Your task to perform on an android device: toggle show notifications on the lock screen Image 0: 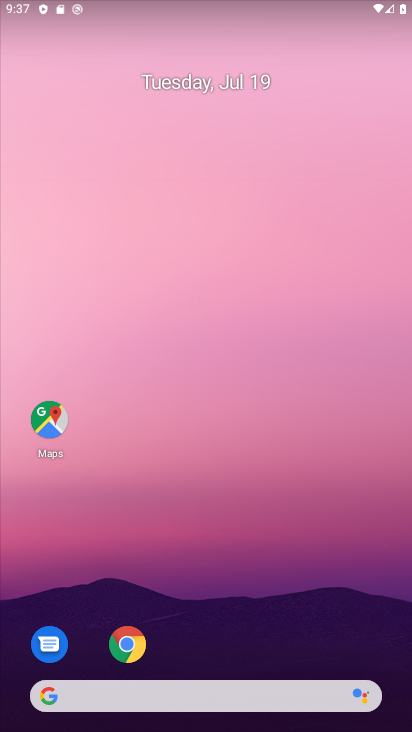
Step 0: drag from (231, 663) to (242, 225)
Your task to perform on an android device: toggle show notifications on the lock screen Image 1: 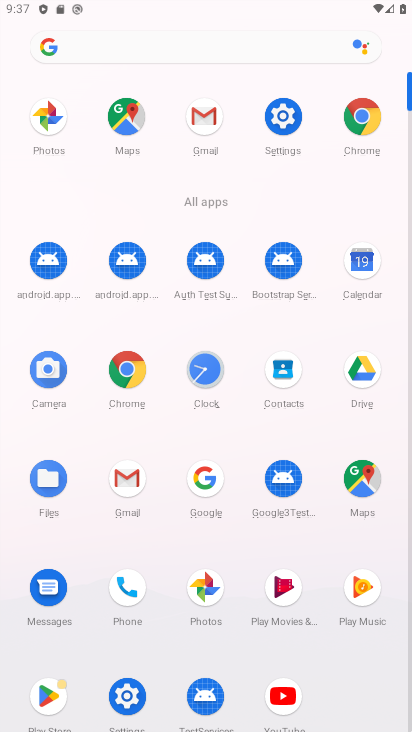
Step 1: click (124, 704)
Your task to perform on an android device: toggle show notifications on the lock screen Image 2: 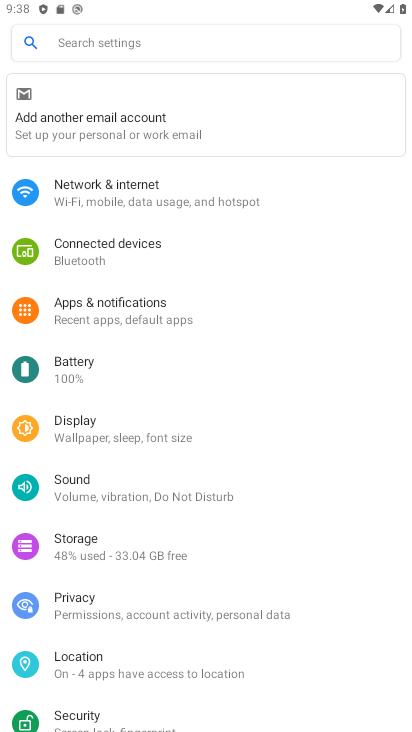
Step 2: click (152, 315)
Your task to perform on an android device: toggle show notifications on the lock screen Image 3: 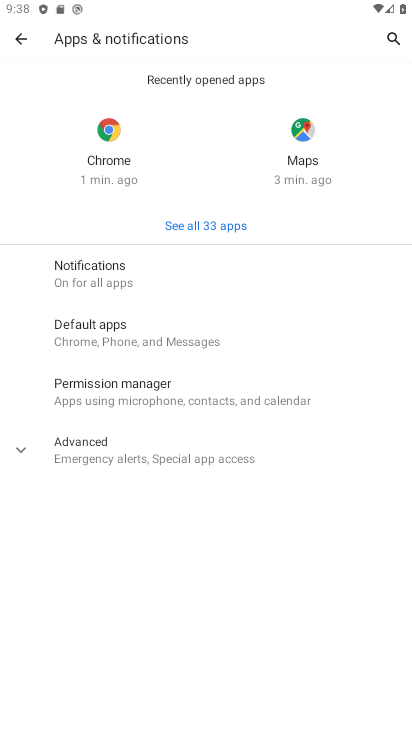
Step 3: click (159, 287)
Your task to perform on an android device: toggle show notifications on the lock screen Image 4: 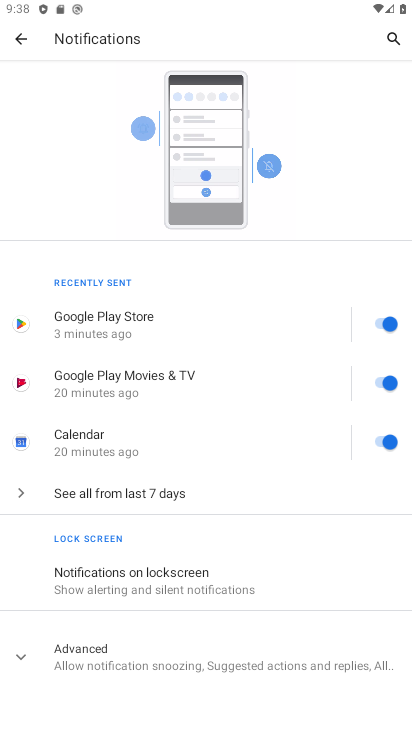
Step 4: click (233, 589)
Your task to perform on an android device: toggle show notifications on the lock screen Image 5: 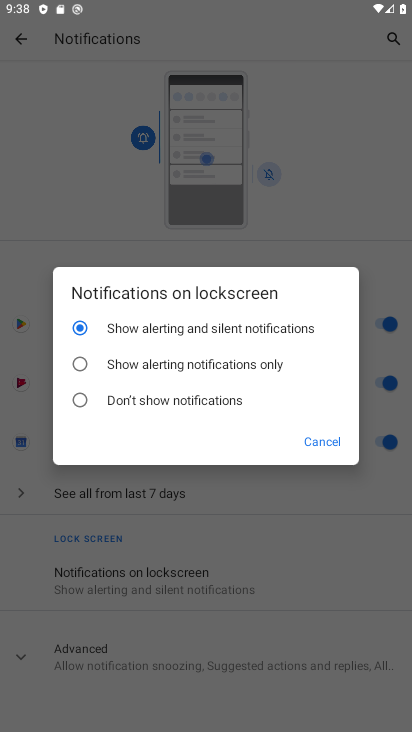
Step 5: click (193, 401)
Your task to perform on an android device: toggle show notifications on the lock screen Image 6: 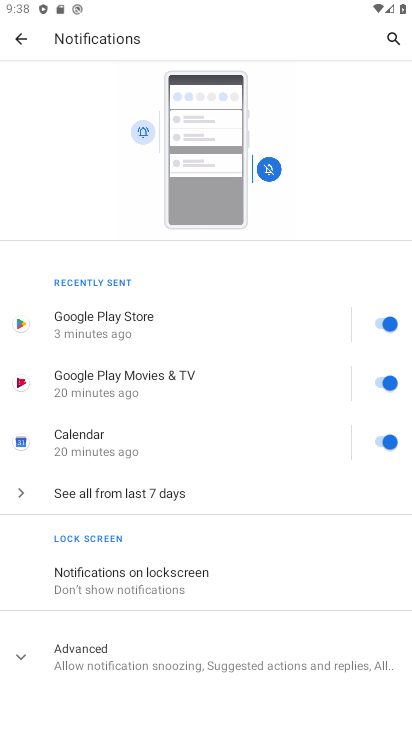
Step 6: task complete